Your task to perform on an android device: Find coffee shops on Maps Image 0: 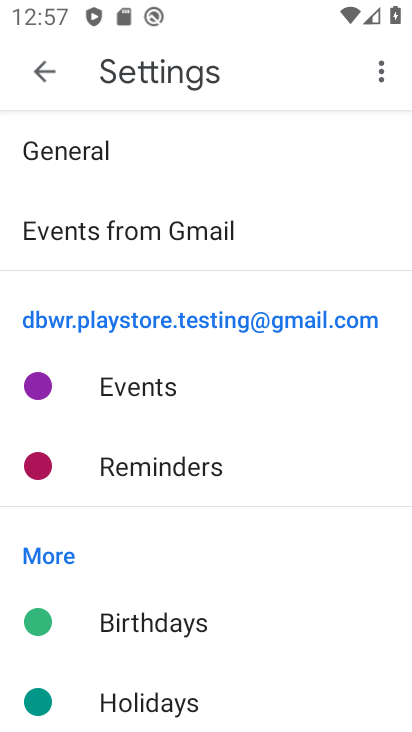
Step 0: press home button
Your task to perform on an android device: Find coffee shops on Maps Image 1: 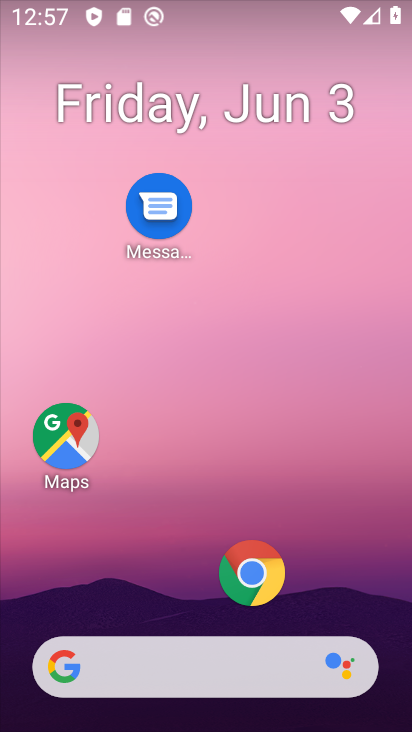
Step 1: click (70, 451)
Your task to perform on an android device: Find coffee shops on Maps Image 2: 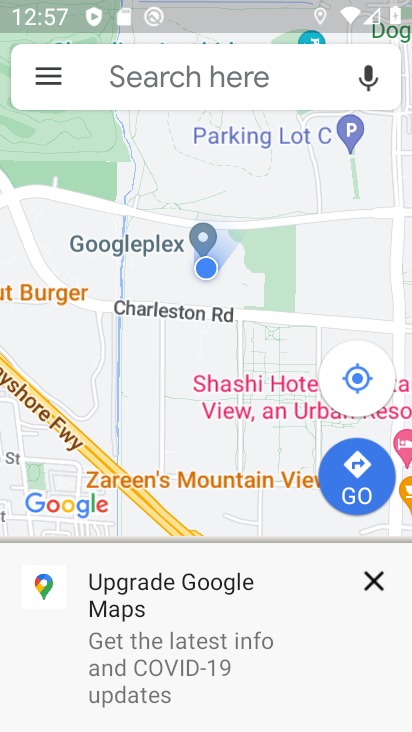
Step 2: click (374, 576)
Your task to perform on an android device: Find coffee shops on Maps Image 3: 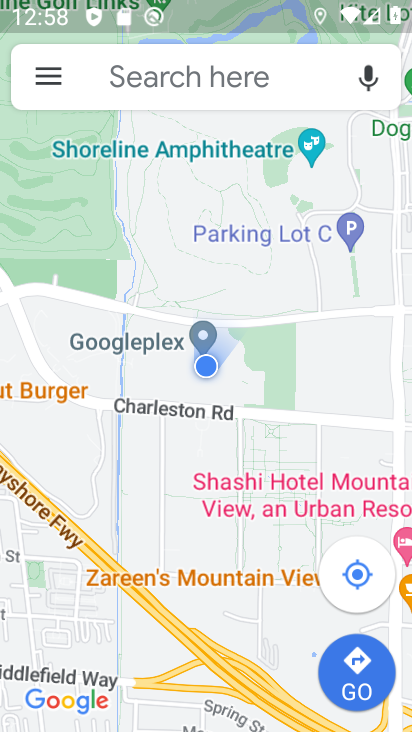
Step 3: click (150, 91)
Your task to perform on an android device: Find coffee shops on Maps Image 4: 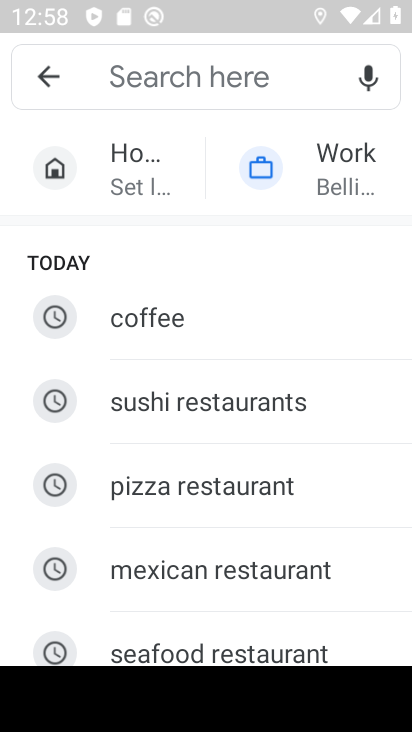
Step 4: click (263, 342)
Your task to perform on an android device: Find coffee shops on Maps Image 5: 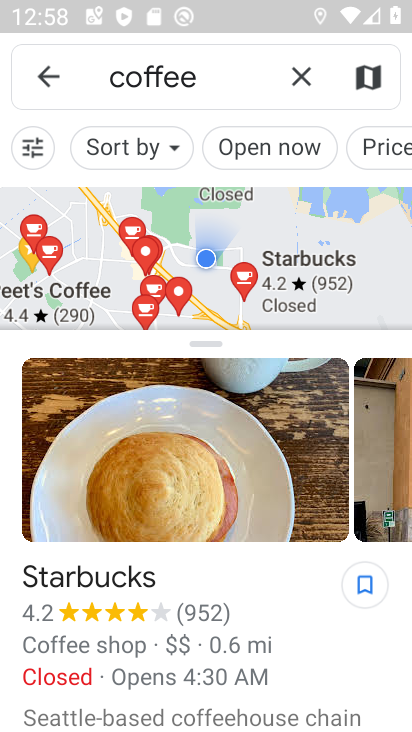
Step 5: task complete